Your task to perform on an android device: turn pop-ups off in chrome Image 0: 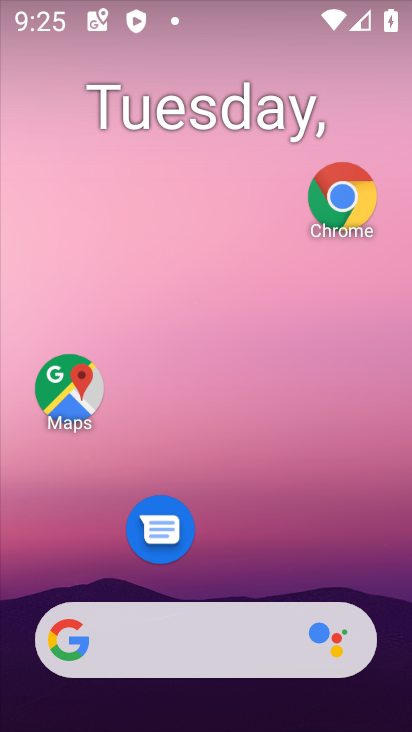
Step 0: drag from (247, 581) to (302, 99)
Your task to perform on an android device: turn pop-ups off in chrome Image 1: 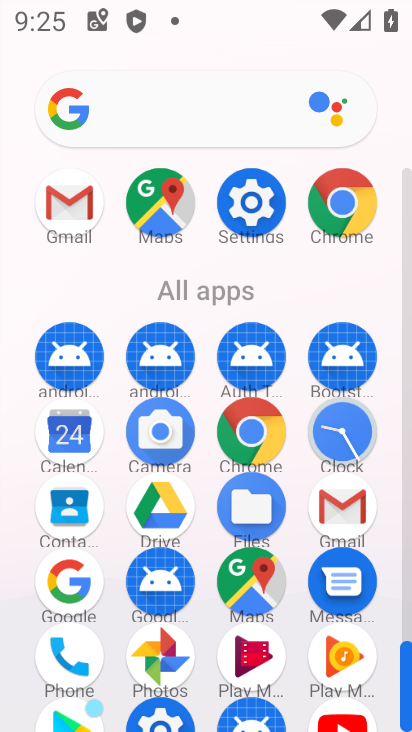
Step 1: click (339, 204)
Your task to perform on an android device: turn pop-ups off in chrome Image 2: 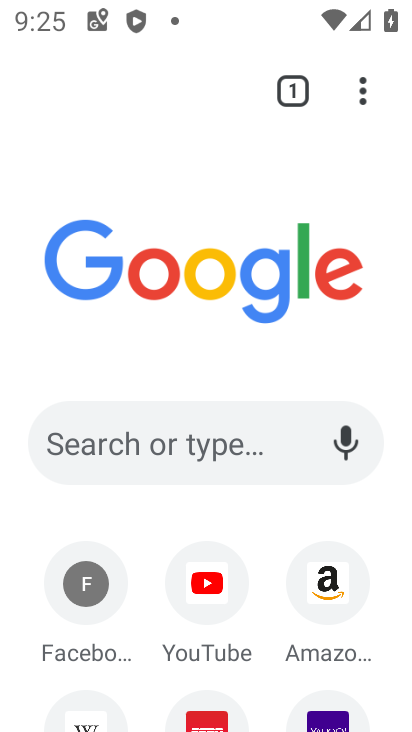
Step 2: click (355, 101)
Your task to perform on an android device: turn pop-ups off in chrome Image 3: 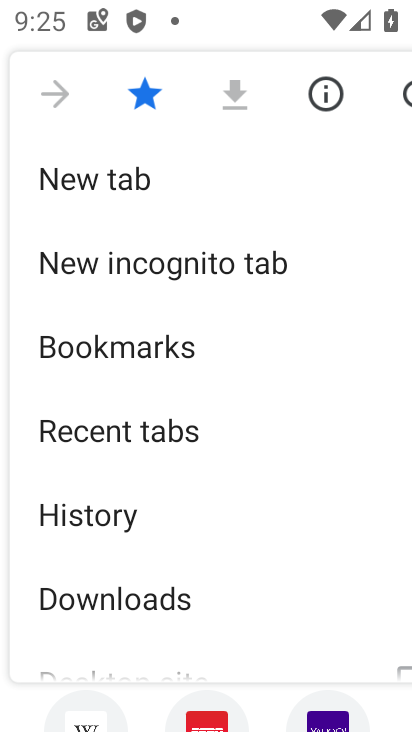
Step 3: click (177, 170)
Your task to perform on an android device: turn pop-ups off in chrome Image 4: 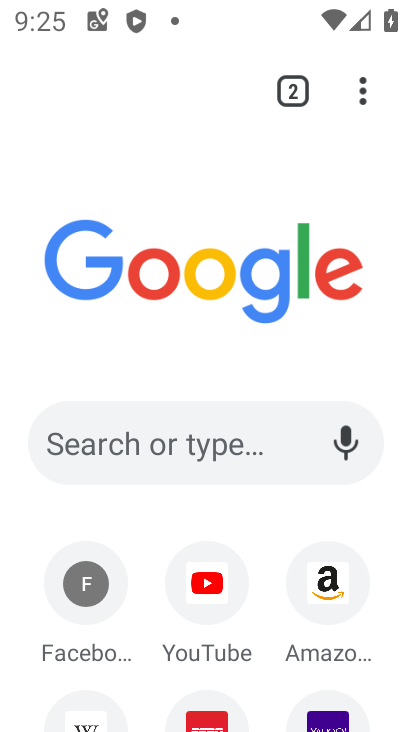
Step 4: click (355, 104)
Your task to perform on an android device: turn pop-ups off in chrome Image 5: 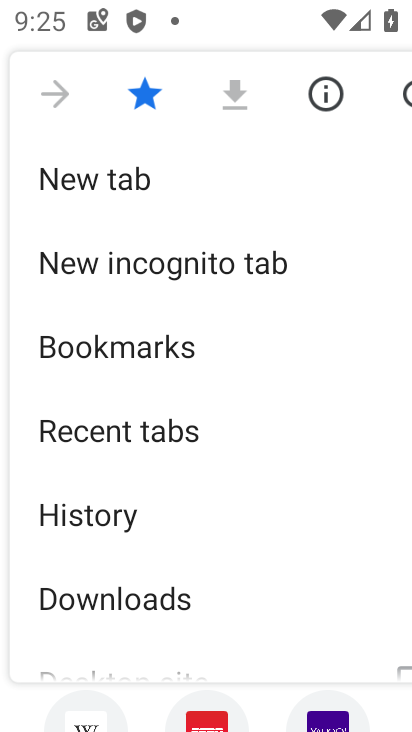
Step 5: drag from (100, 217) to (100, 157)
Your task to perform on an android device: turn pop-ups off in chrome Image 6: 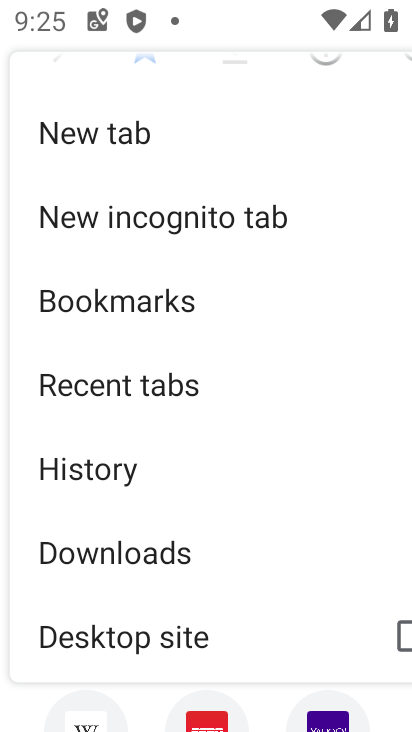
Step 6: drag from (198, 576) to (160, 113)
Your task to perform on an android device: turn pop-ups off in chrome Image 7: 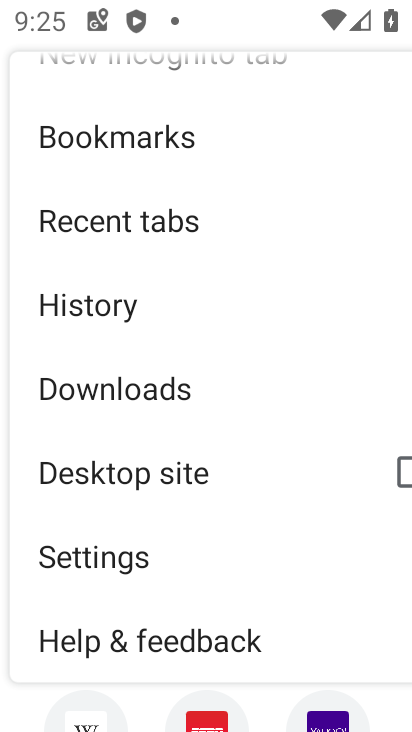
Step 7: click (117, 551)
Your task to perform on an android device: turn pop-ups off in chrome Image 8: 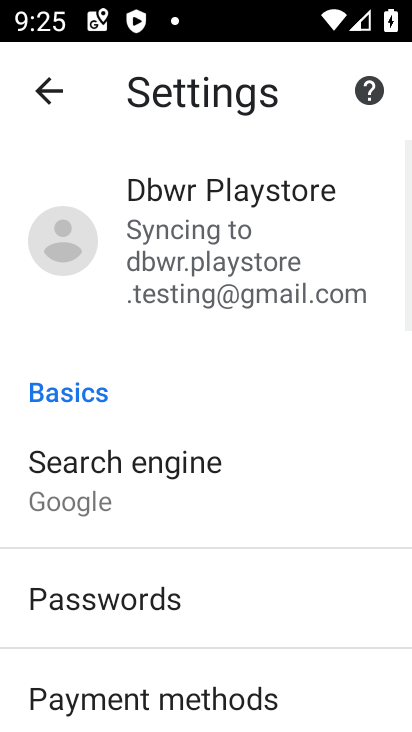
Step 8: drag from (195, 415) to (191, 29)
Your task to perform on an android device: turn pop-ups off in chrome Image 9: 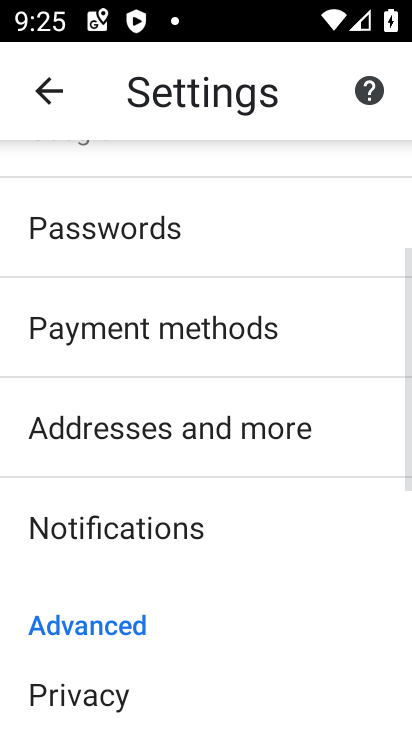
Step 9: drag from (227, 583) to (195, 318)
Your task to perform on an android device: turn pop-ups off in chrome Image 10: 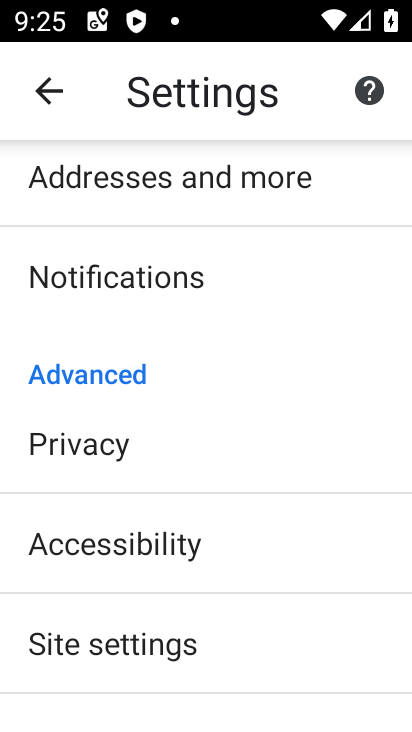
Step 10: click (158, 645)
Your task to perform on an android device: turn pop-ups off in chrome Image 11: 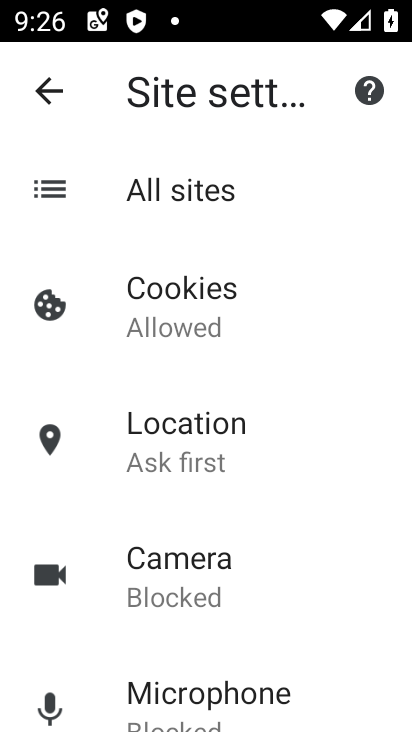
Step 11: drag from (161, 641) to (134, 119)
Your task to perform on an android device: turn pop-ups off in chrome Image 12: 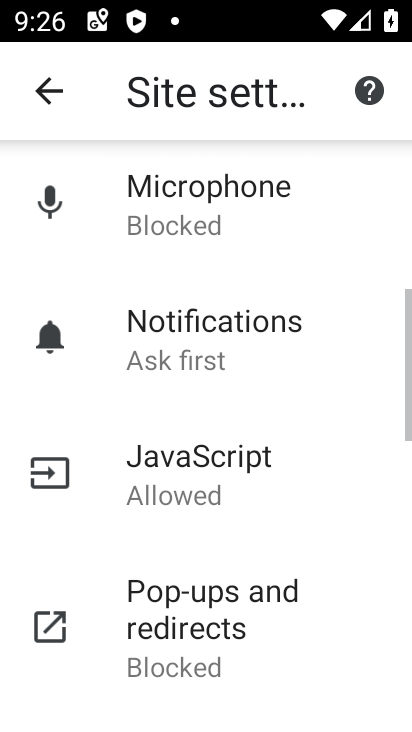
Step 12: click (191, 629)
Your task to perform on an android device: turn pop-ups off in chrome Image 13: 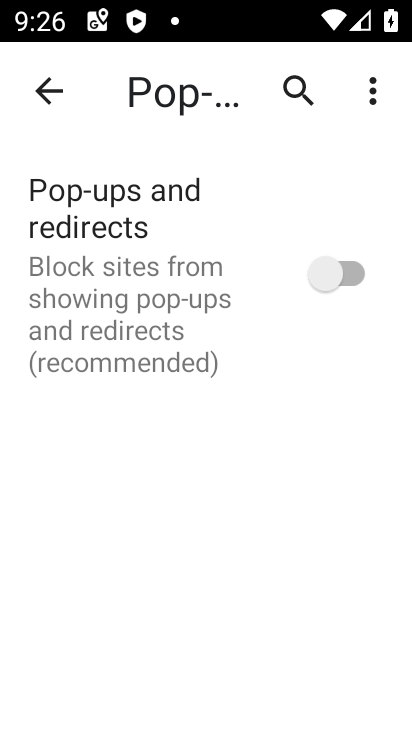
Step 13: task complete